Your task to perform on an android device: Open the Play Movies app and select the watchlist tab. Image 0: 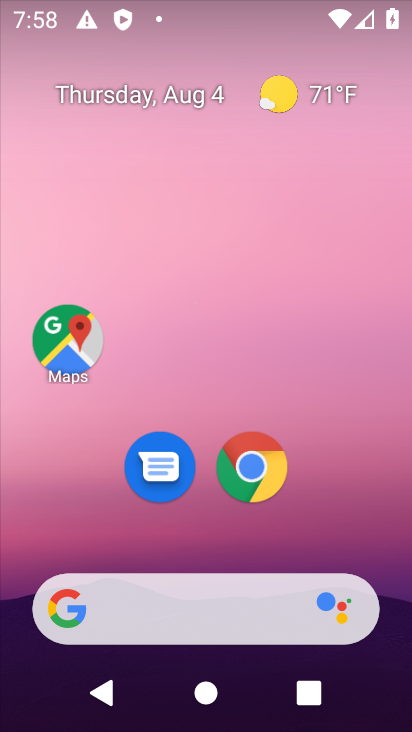
Step 0: drag from (338, 501) to (353, 83)
Your task to perform on an android device: Open the Play Movies app and select the watchlist tab. Image 1: 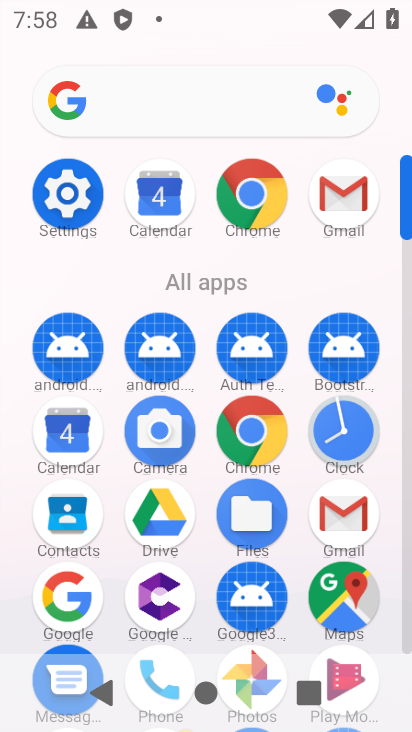
Step 1: drag from (290, 641) to (305, 176)
Your task to perform on an android device: Open the Play Movies app and select the watchlist tab. Image 2: 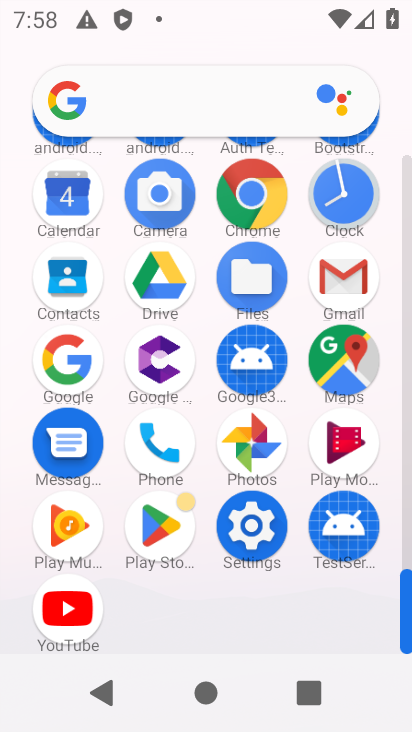
Step 2: click (336, 442)
Your task to perform on an android device: Open the Play Movies app and select the watchlist tab. Image 3: 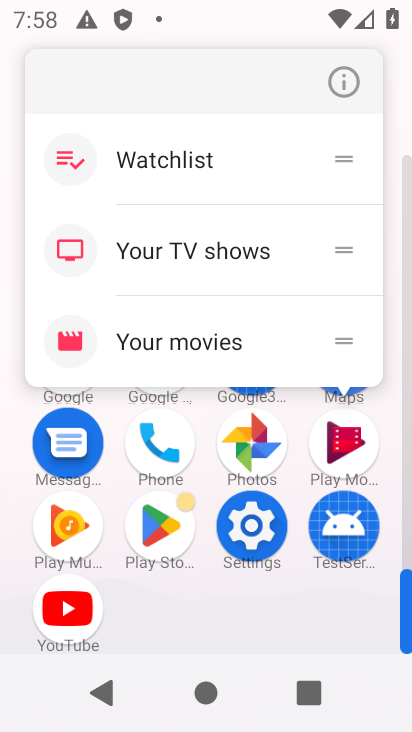
Step 3: click (357, 431)
Your task to perform on an android device: Open the Play Movies app and select the watchlist tab. Image 4: 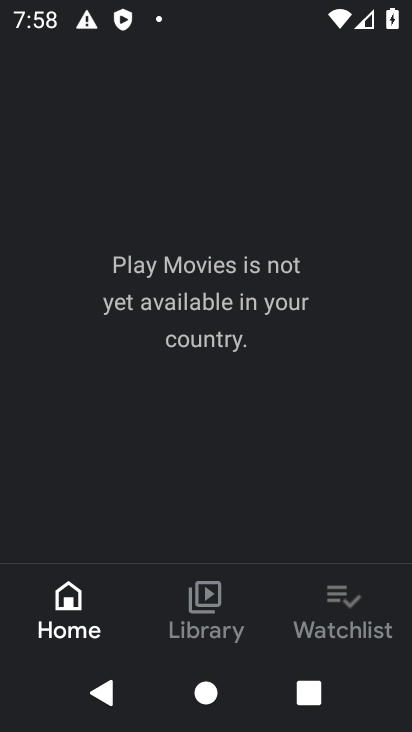
Step 4: click (327, 596)
Your task to perform on an android device: Open the Play Movies app and select the watchlist tab. Image 5: 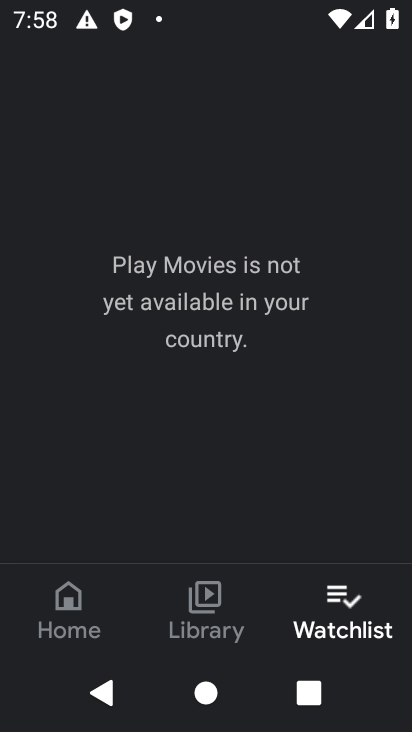
Step 5: task complete